Your task to perform on an android device: Open Maps and search for coffee Image 0: 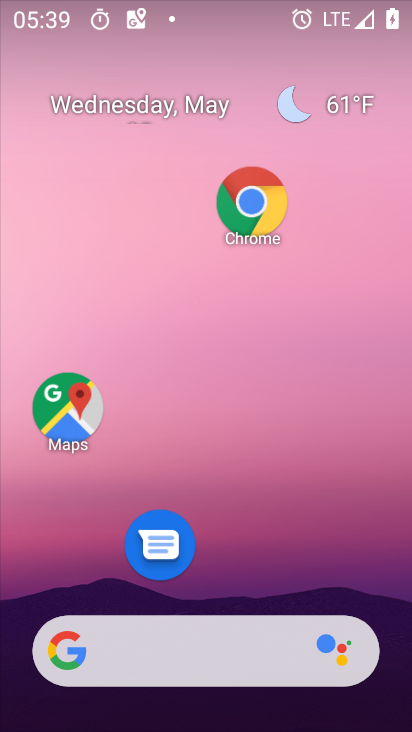
Step 0: click (82, 413)
Your task to perform on an android device: Open Maps and search for coffee Image 1: 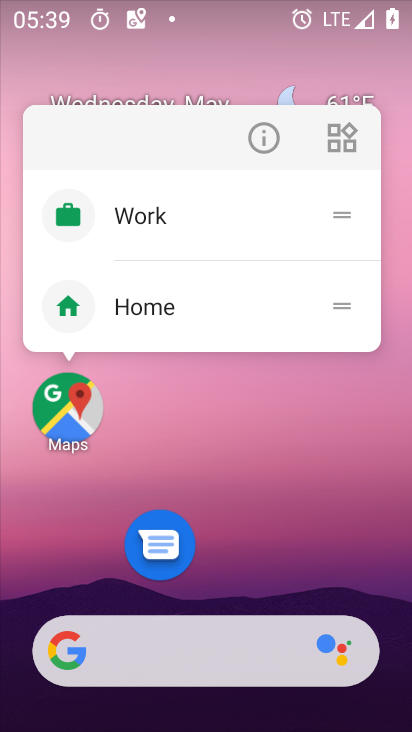
Step 1: click (82, 412)
Your task to perform on an android device: Open Maps and search for coffee Image 2: 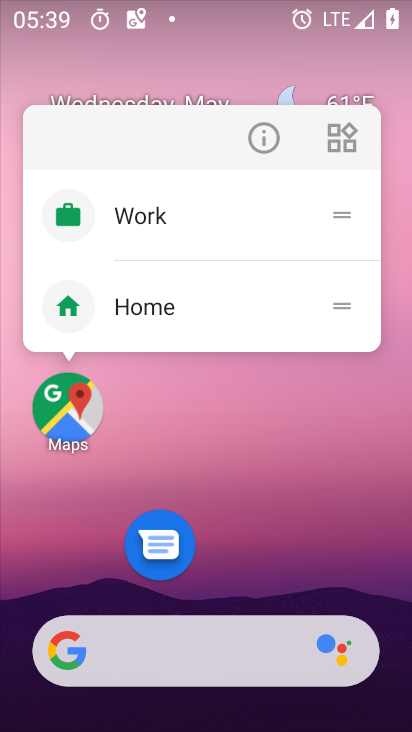
Step 2: click (71, 429)
Your task to perform on an android device: Open Maps and search for coffee Image 3: 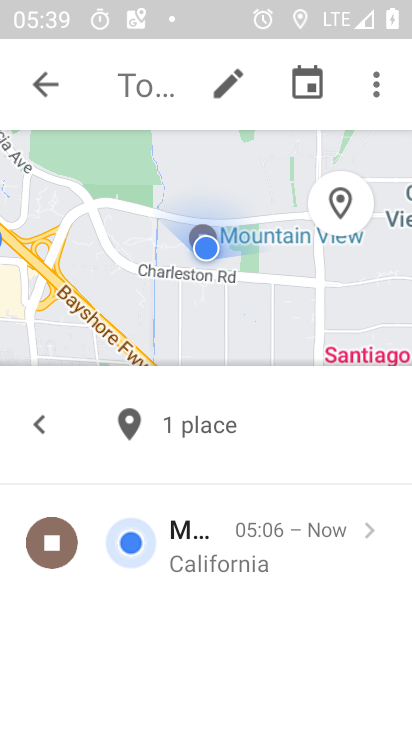
Step 3: click (60, 83)
Your task to perform on an android device: Open Maps and search for coffee Image 4: 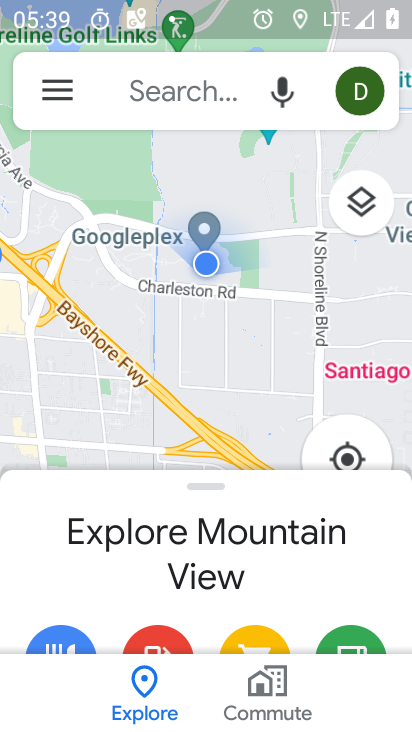
Step 4: click (139, 95)
Your task to perform on an android device: Open Maps and search for coffee Image 5: 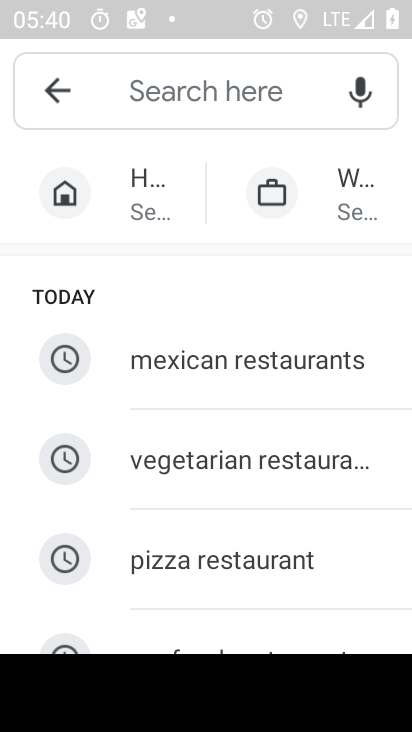
Step 5: drag from (264, 571) to (255, 279)
Your task to perform on an android device: Open Maps and search for coffee Image 6: 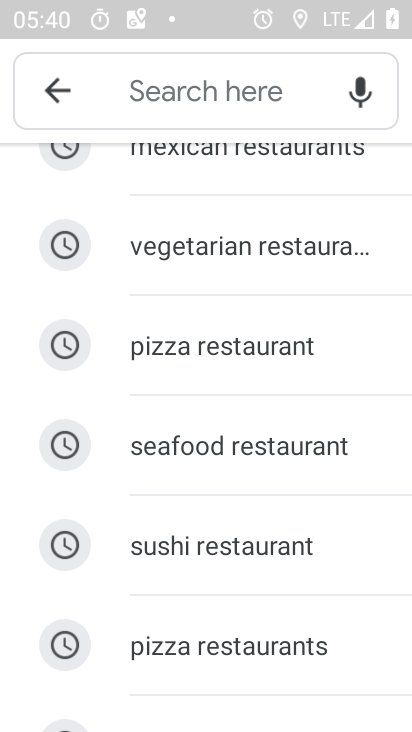
Step 6: drag from (274, 688) to (190, 378)
Your task to perform on an android device: Open Maps and search for coffee Image 7: 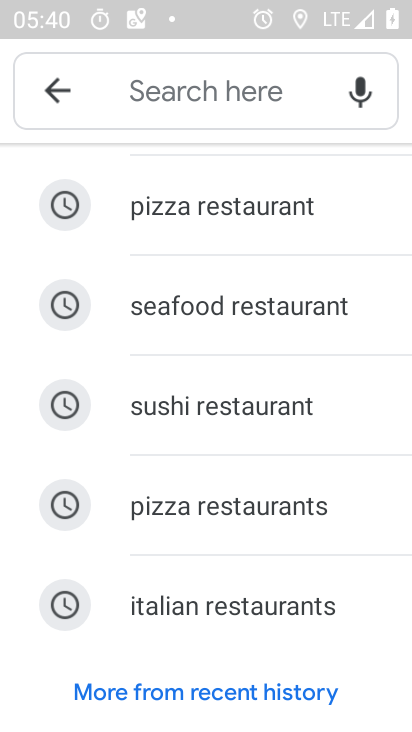
Step 7: drag from (218, 692) to (196, 449)
Your task to perform on an android device: Open Maps and search for coffee Image 8: 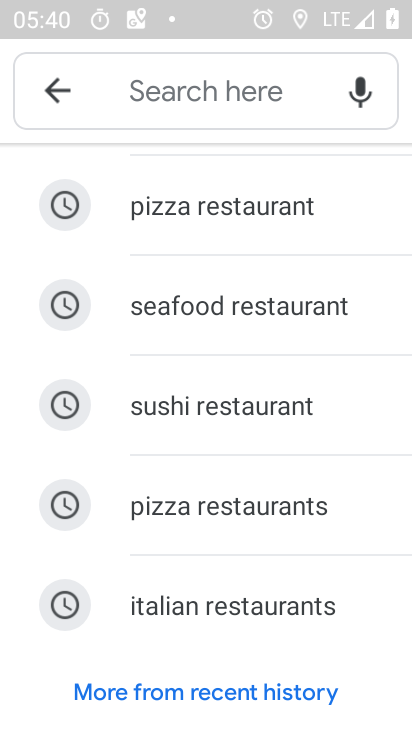
Step 8: type "coffee"
Your task to perform on an android device: Open Maps and search for coffee Image 9: 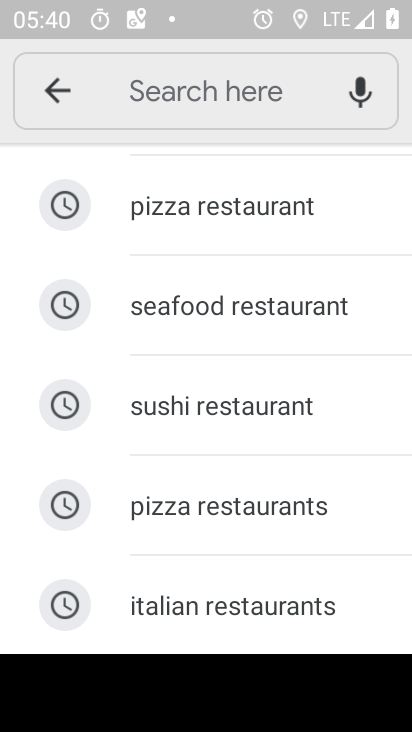
Step 9: task complete